Your task to perform on an android device: turn pop-ups off in chrome Image 0: 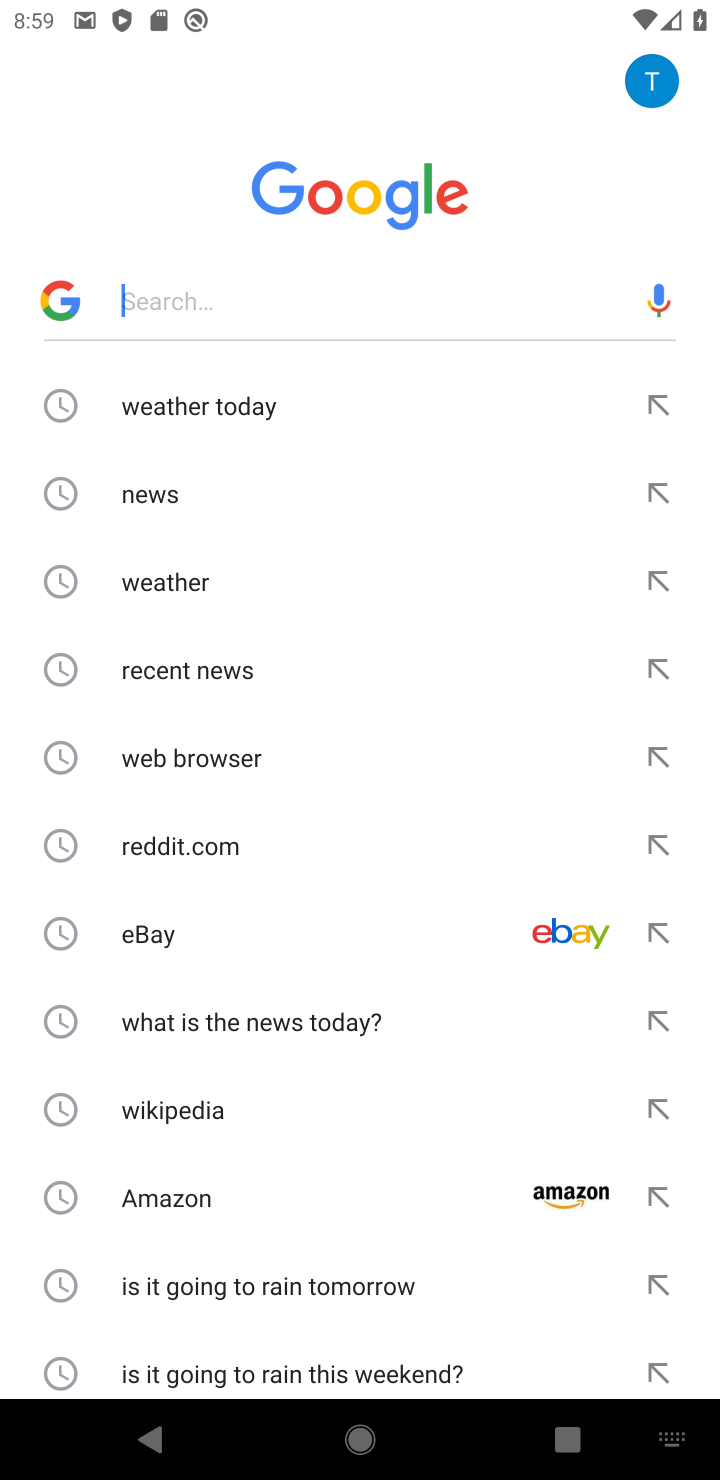
Step 0: press back button
Your task to perform on an android device: turn pop-ups off in chrome Image 1: 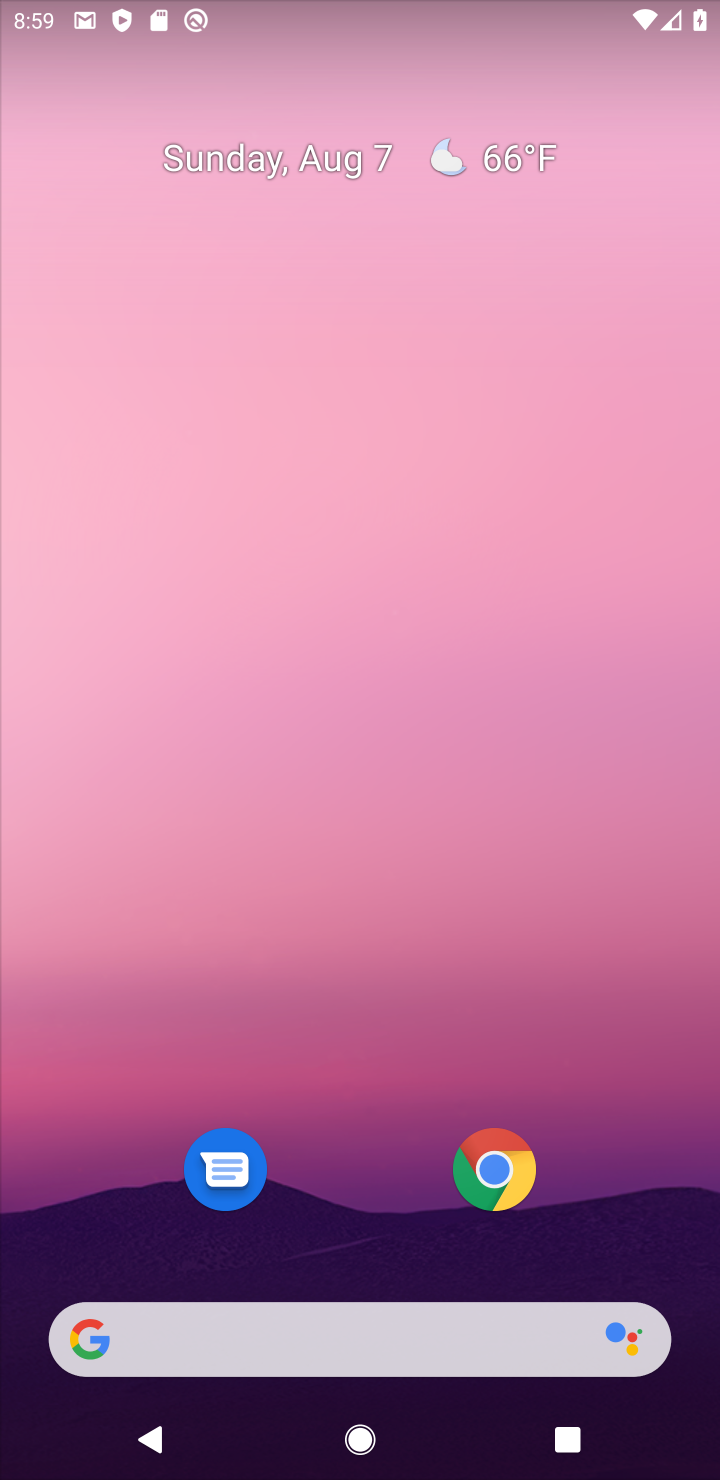
Step 1: drag from (343, 1262) to (166, 145)
Your task to perform on an android device: turn pop-ups off in chrome Image 2: 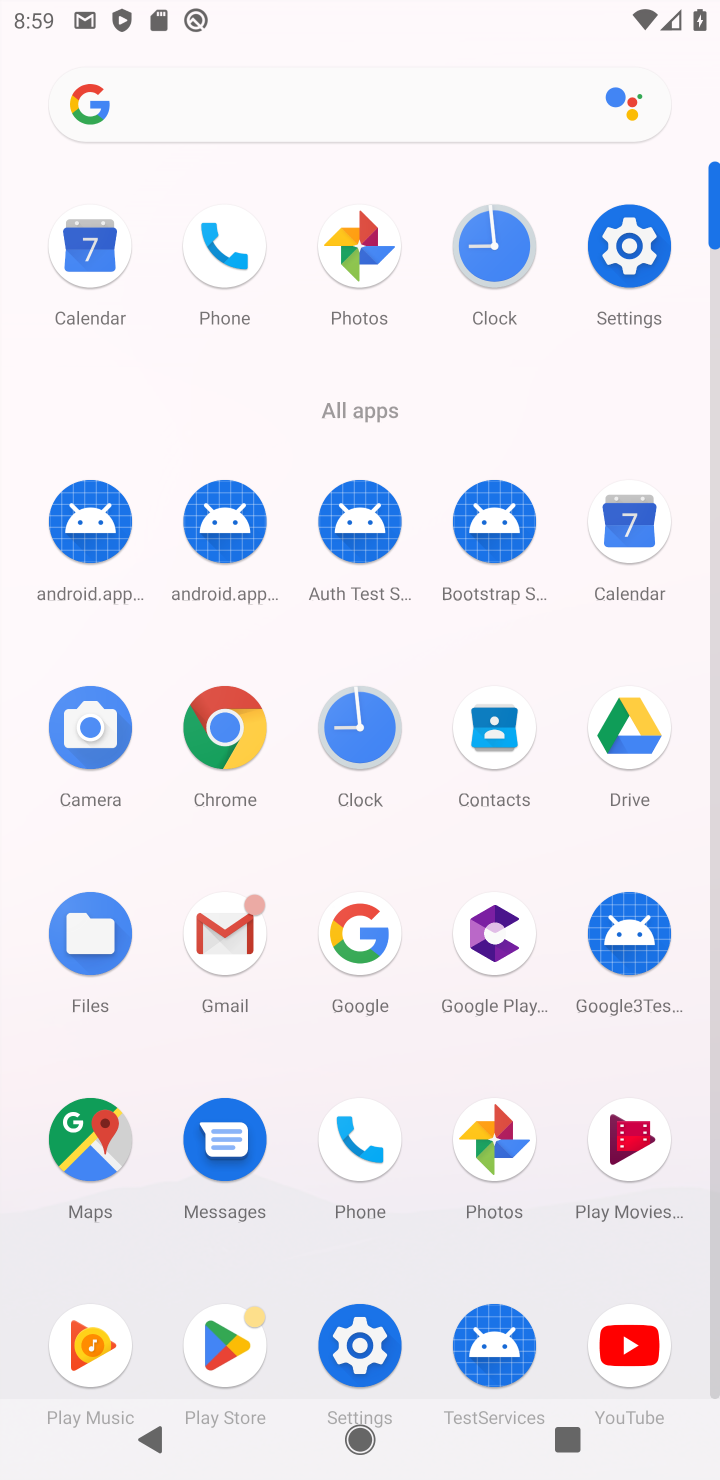
Step 2: click (248, 716)
Your task to perform on an android device: turn pop-ups off in chrome Image 3: 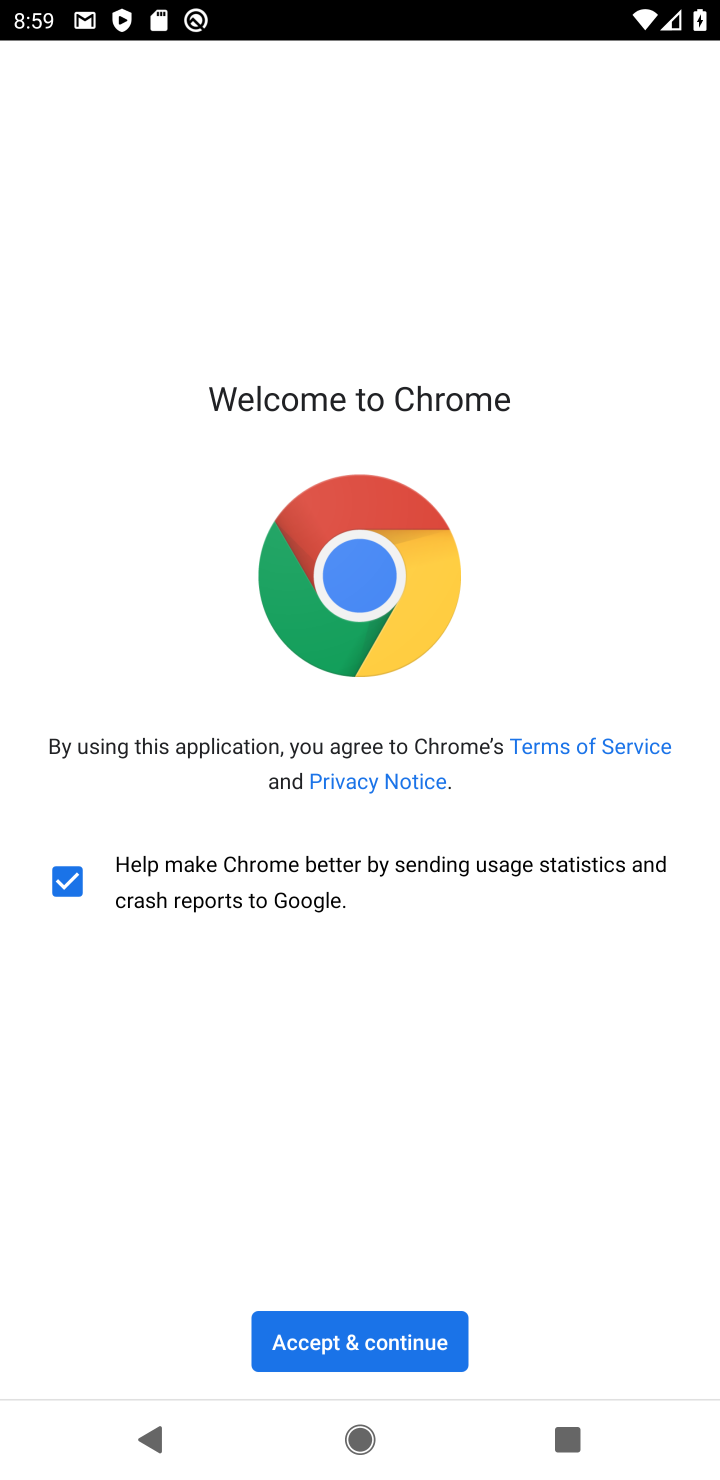
Step 3: click (401, 1317)
Your task to perform on an android device: turn pop-ups off in chrome Image 4: 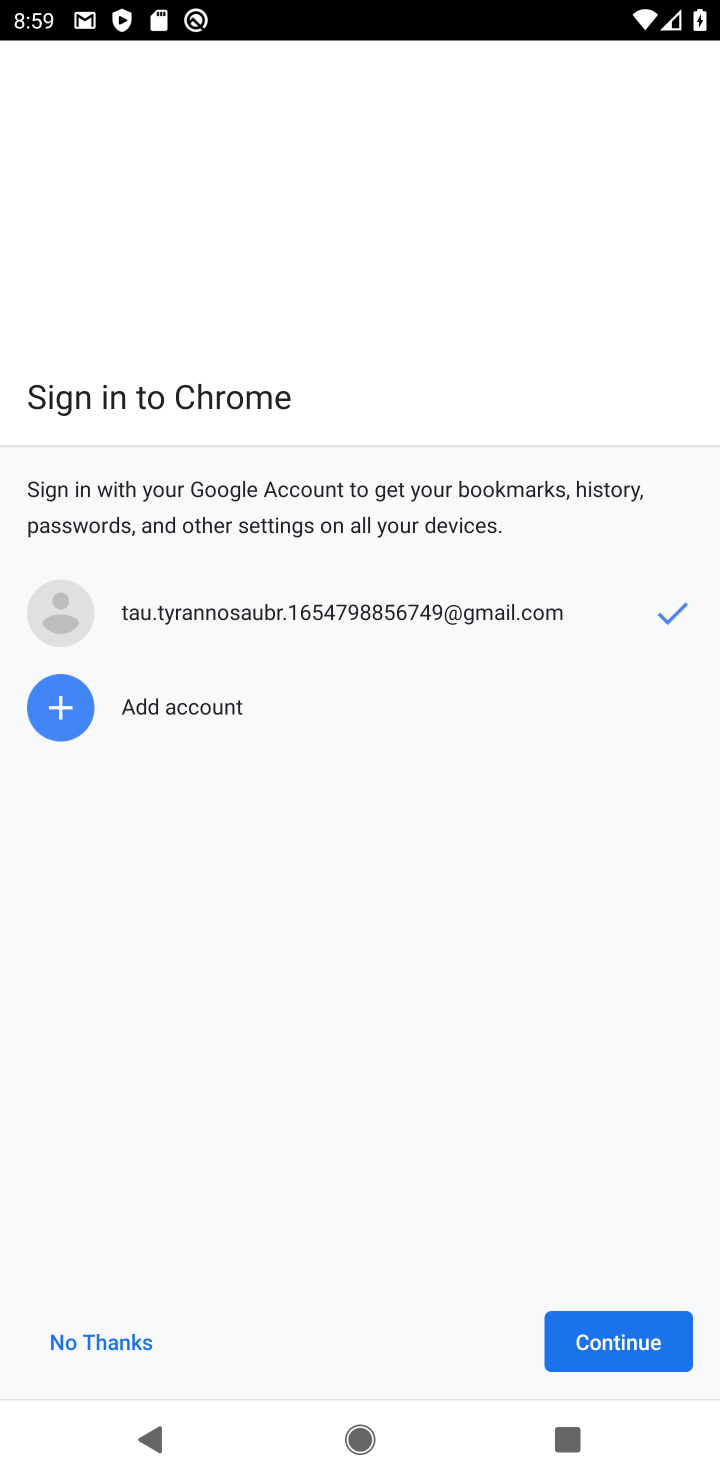
Step 4: click (540, 1334)
Your task to perform on an android device: turn pop-ups off in chrome Image 5: 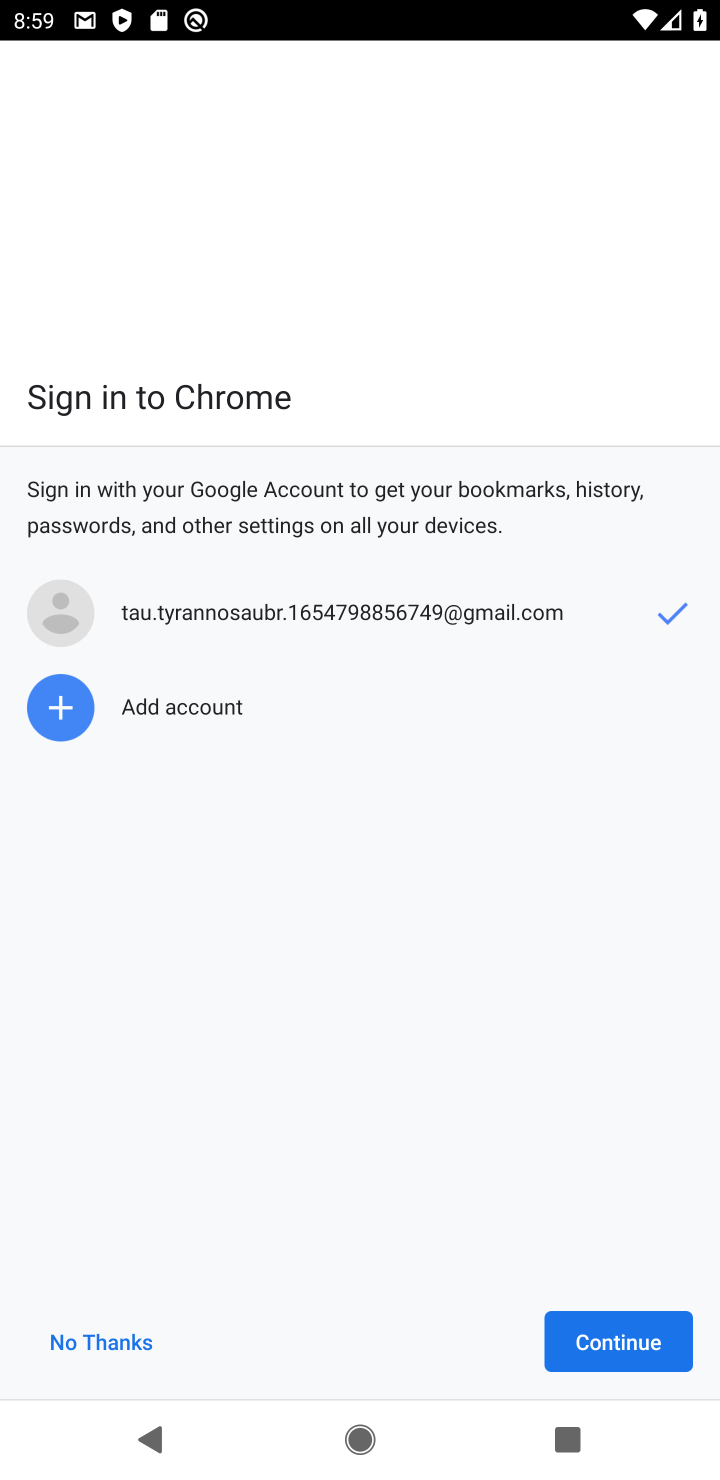
Step 5: click (664, 1338)
Your task to perform on an android device: turn pop-ups off in chrome Image 6: 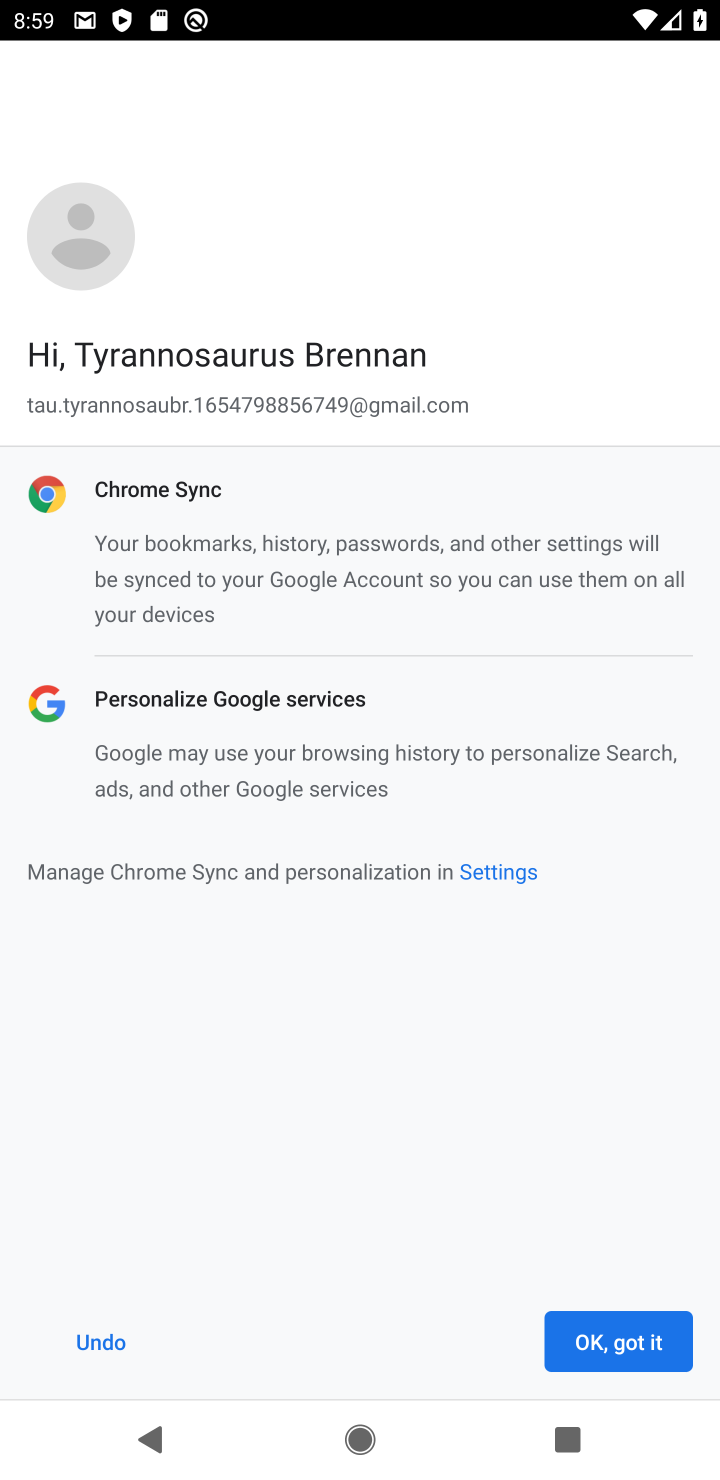
Step 6: click (656, 1336)
Your task to perform on an android device: turn pop-ups off in chrome Image 7: 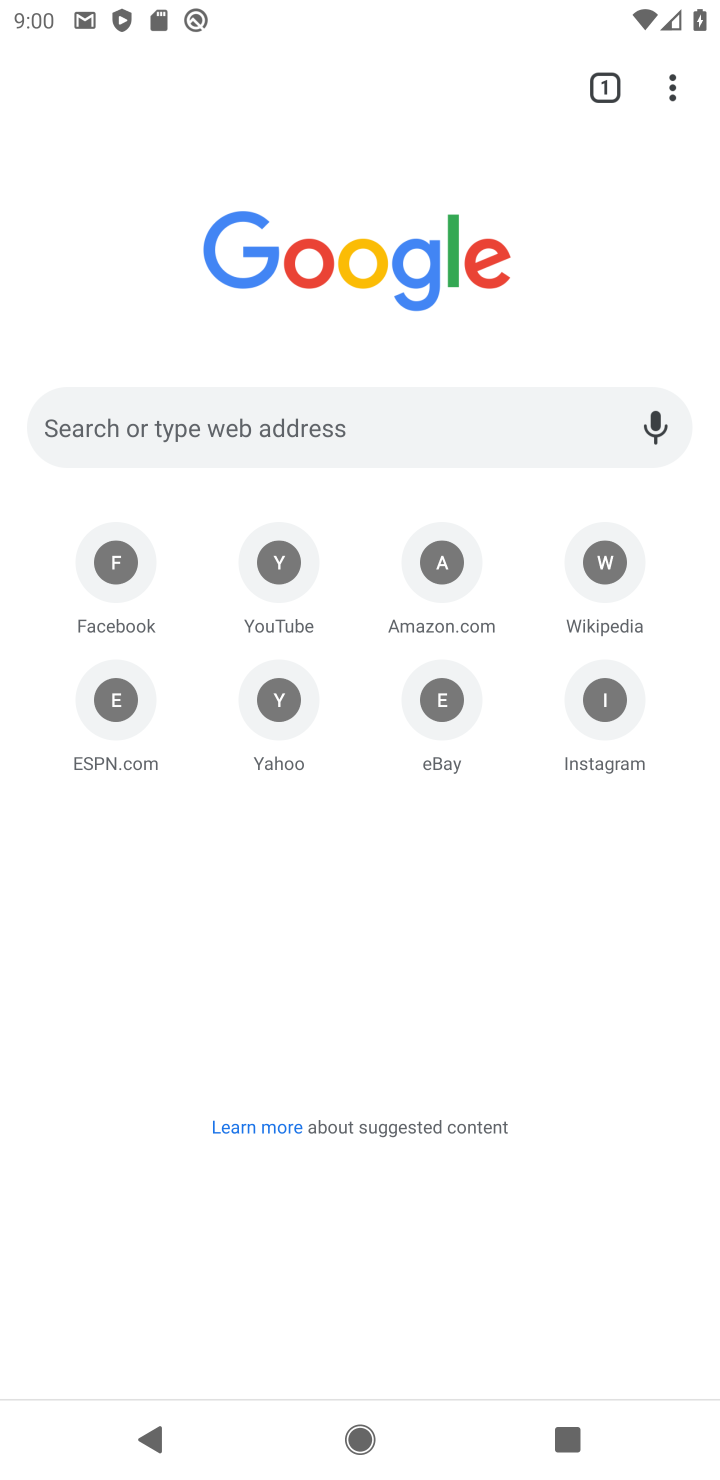
Step 7: drag from (682, 76) to (343, 724)
Your task to perform on an android device: turn pop-ups off in chrome Image 8: 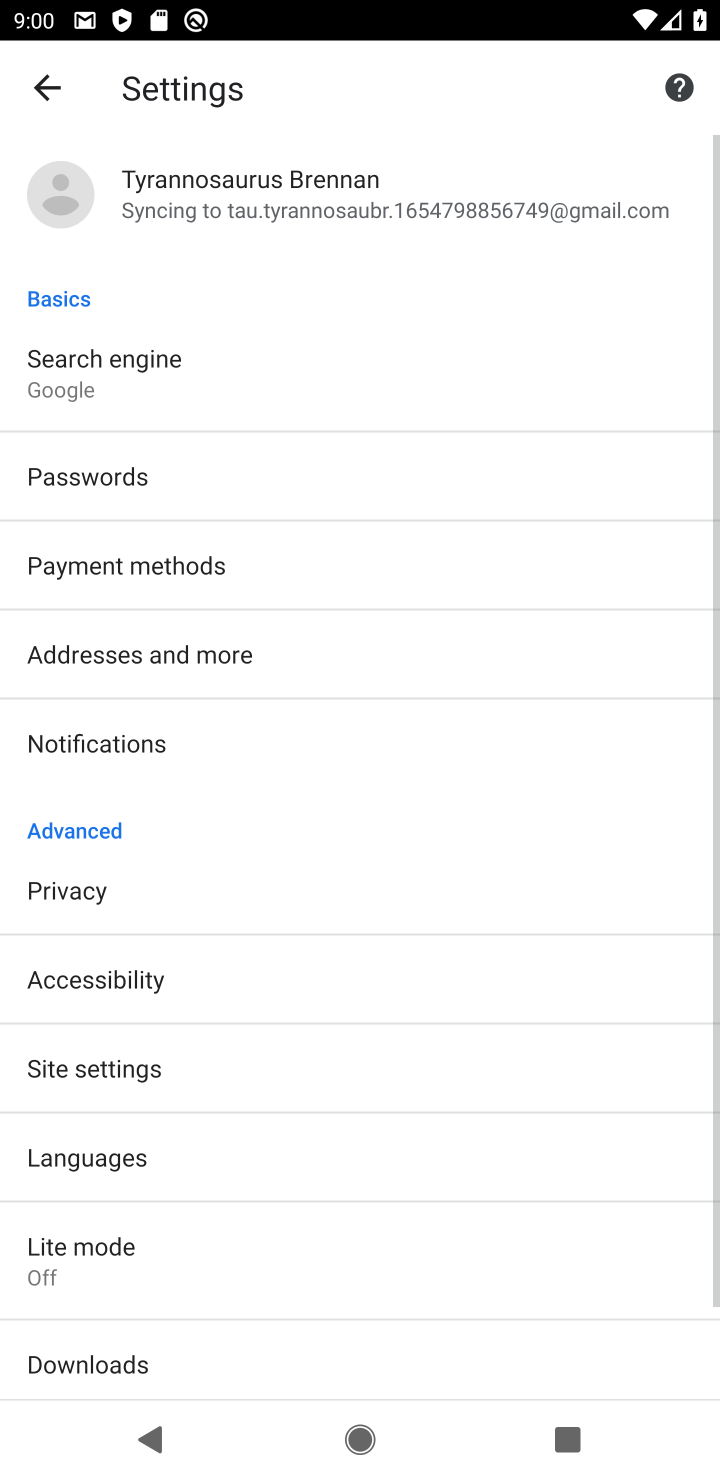
Step 8: click (117, 1086)
Your task to perform on an android device: turn pop-ups off in chrome Image 9: 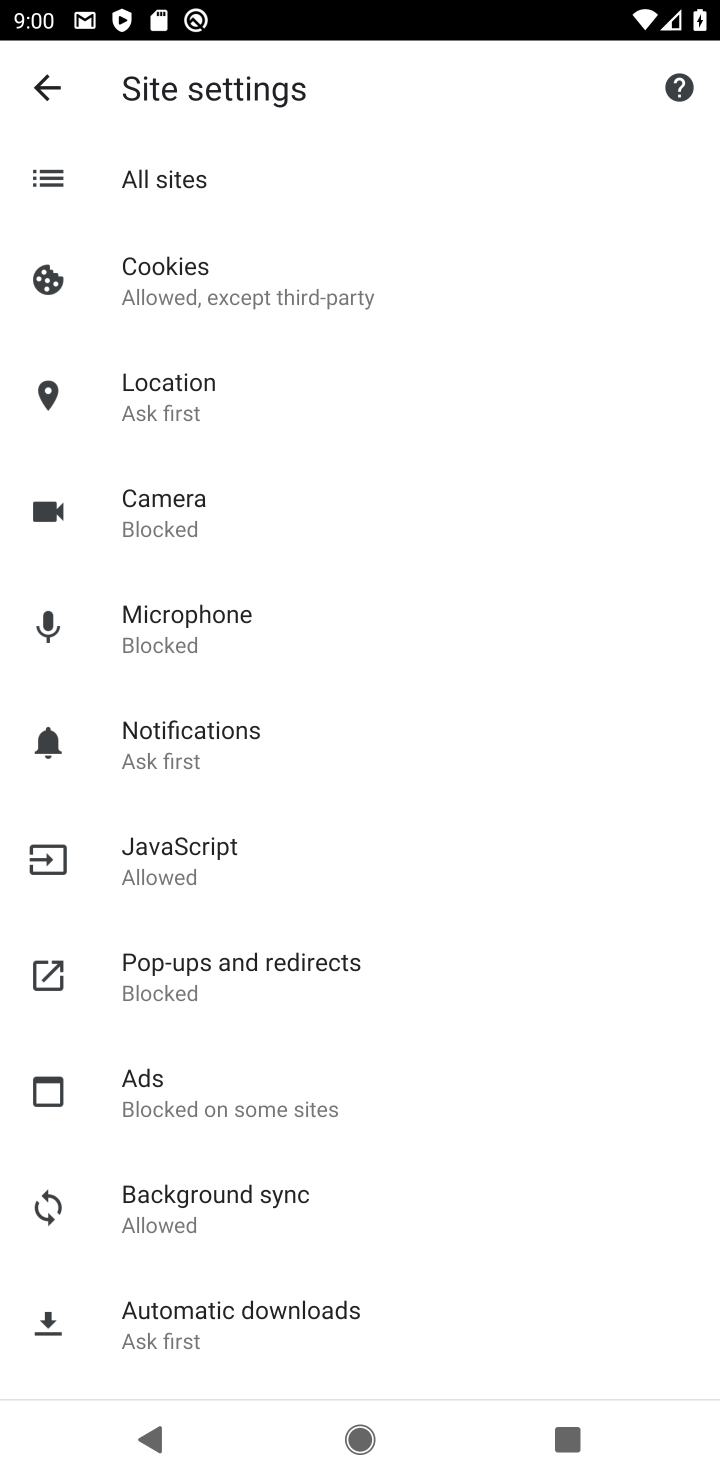
Step 9: click (239, 977)
Your task to perform on an android device: turn pop-ups off in chrome Image 10: 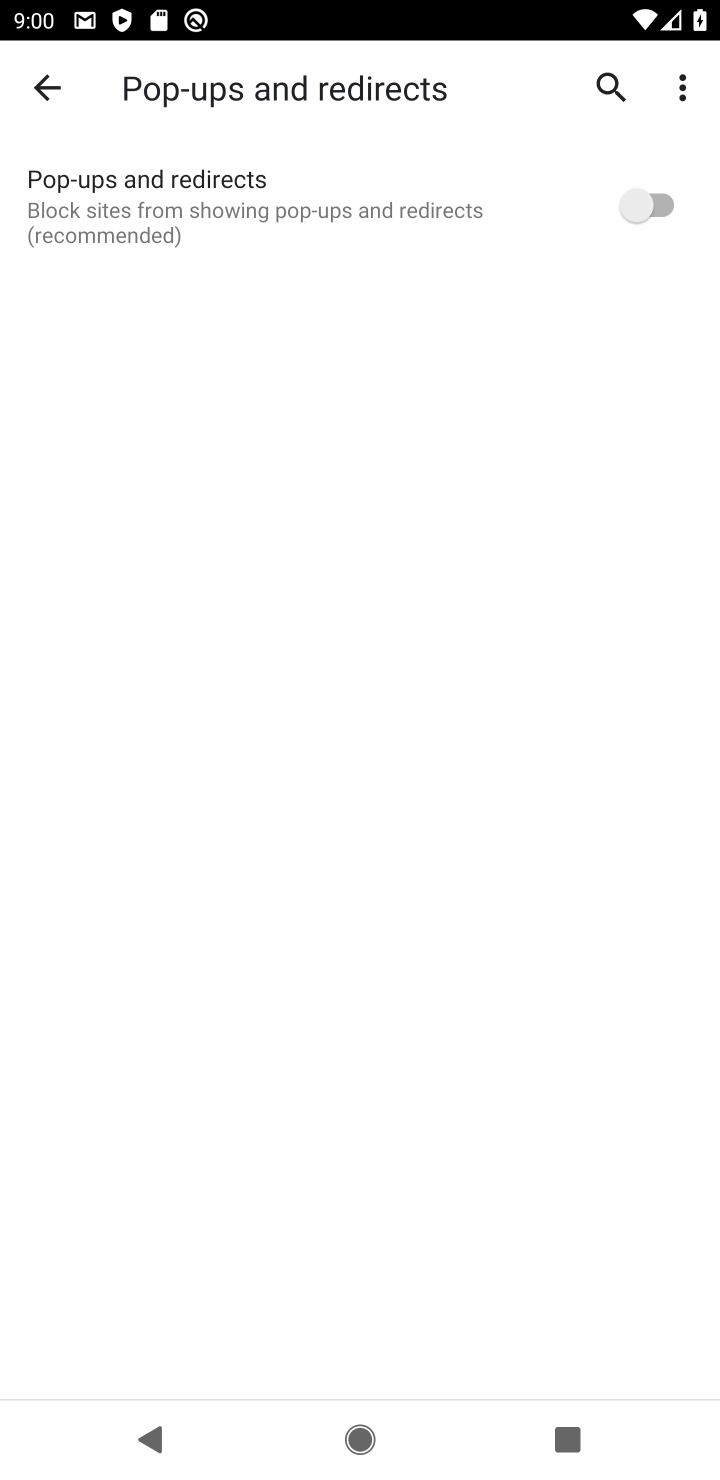
Step 10: task complete